Your task to perform on an android device: clear history in the chrome app Image 0: 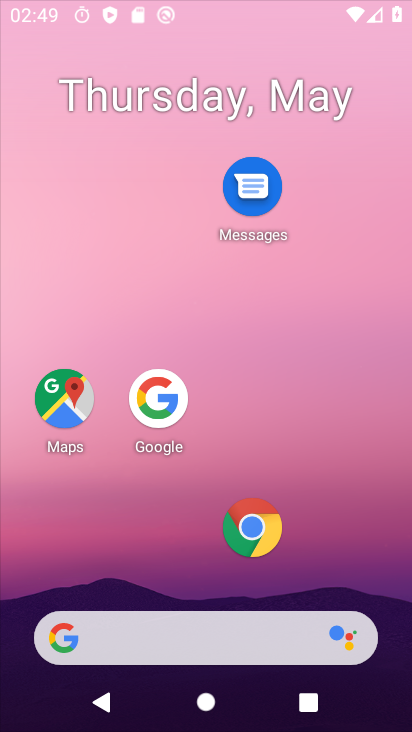
Step 0: click (190, 51)
Your task to perform on an android device: clear history in the chrome app Image 1: 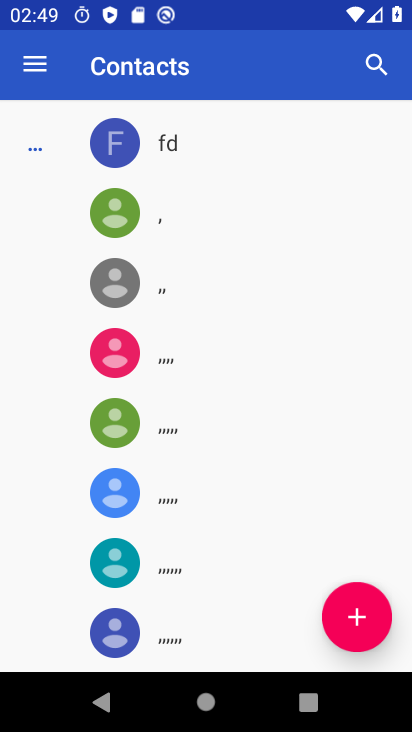
Step 1: drag from (146, 549) to (243, 182)
Your task to perform on an android device: clear history in the chrome app Image 2: 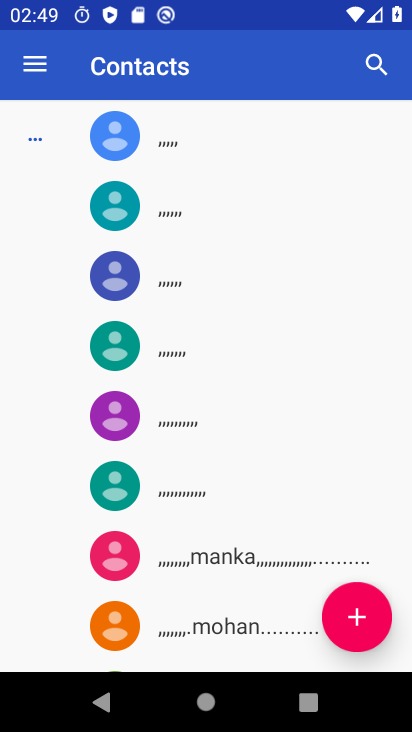
Step 2: press home button
Your task to perform on an android device: clear history in the chrome app Image 3: 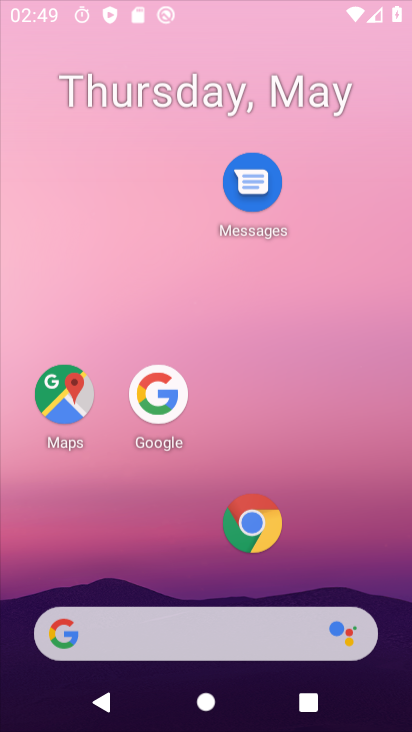
Step 3: drag from (217, 492) to (243, 135)
Your task to perform on an android device: clear history in the chrome app Image 4: 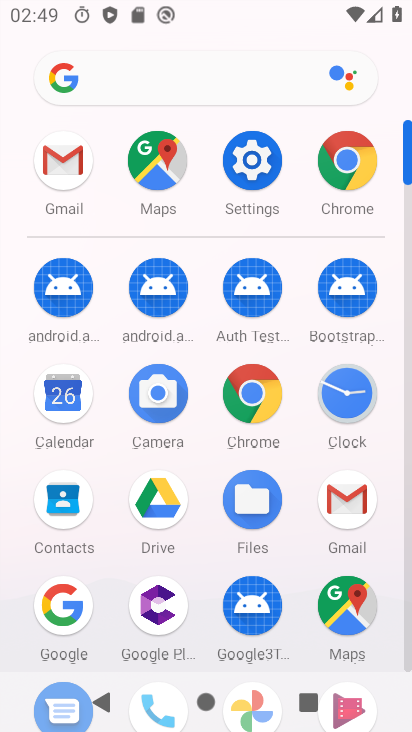
Step 4: click (247, 393)
Your task to perform on an android device: clear history in the chrome app Image 5: 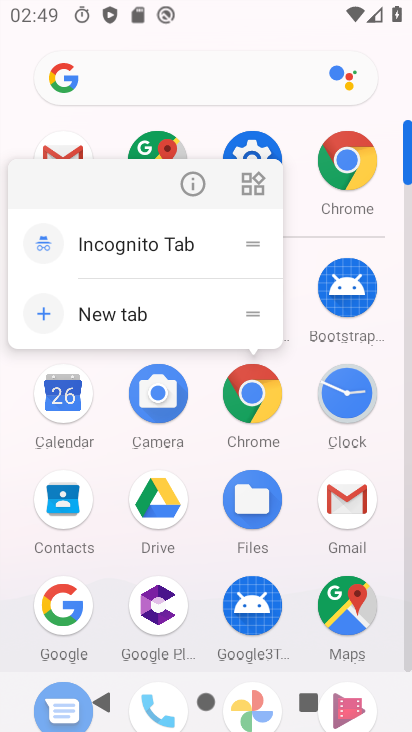
Step 5: click (186, 181)
Your task to perform on an android device: clear history in the chrome app Image 6: 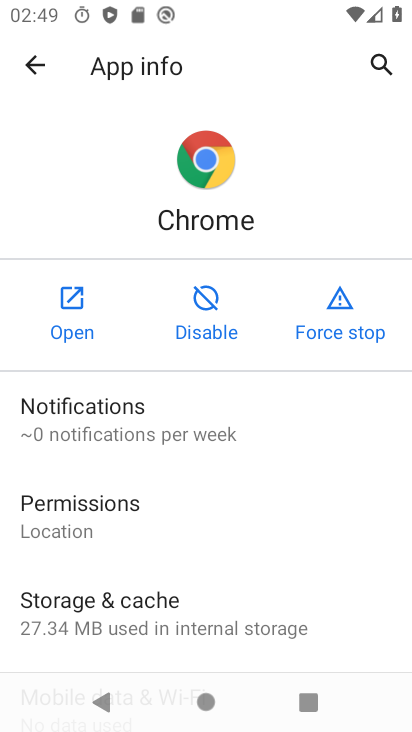
Step 6: click (69, 316)
Your task to perform on an android device: clear history in the chrome app Image 7: 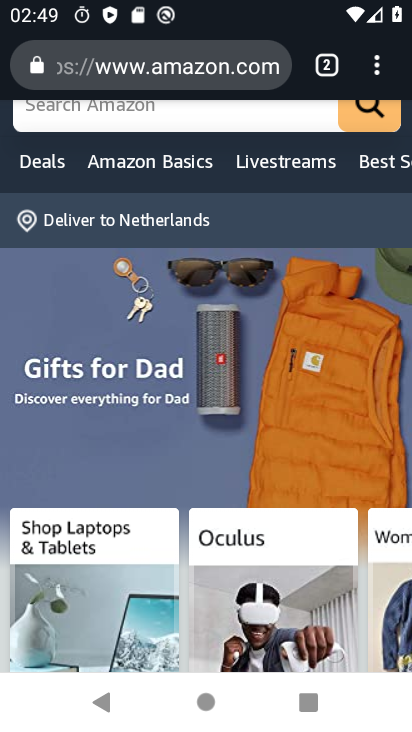
Step 7: click (388, 66)
Your task to perform on an android device: clear history in the chrome app Image 8: 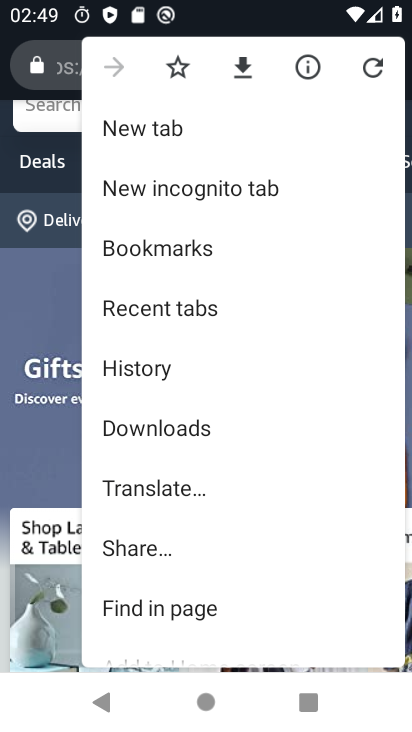
Step 8: click (167, 355)
Your task to perform on an android device: clear history in the chrome app Image 9: 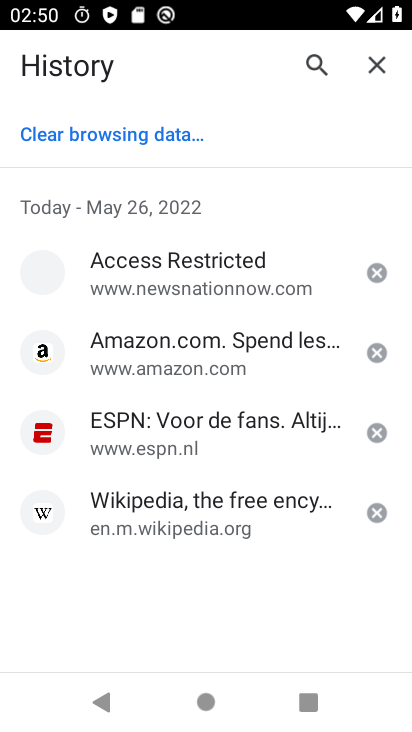
Step 9: click (135, 141)
Your task to perform on an android device: clear history in the chrome app Image 10: 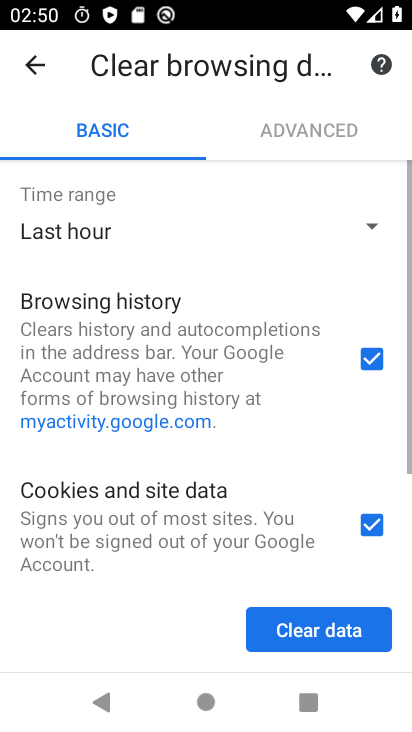
Step 10: click (371, 225)
Your task to perform on an android device: clear history in the chrome app Image 11: 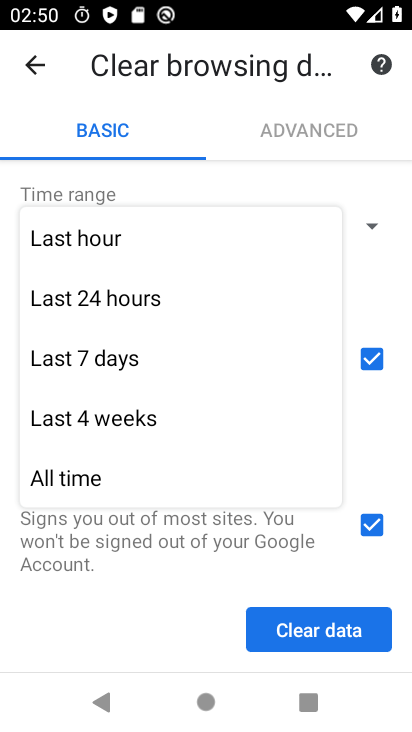
Step 11: click (92, 491)
Your task to perform on an android device: clear history in the chrome app Image 12: 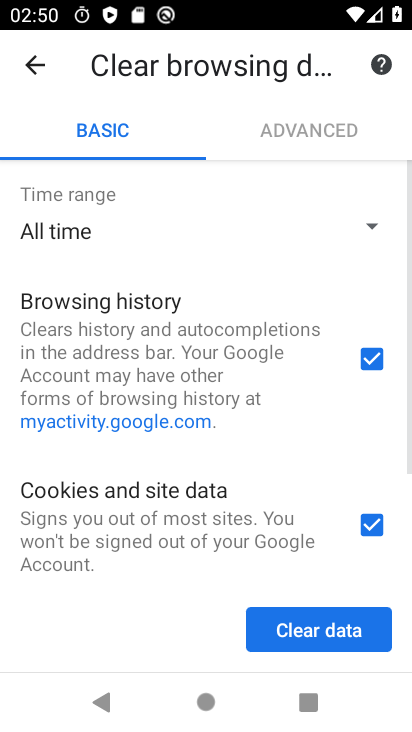
Step 12: click (291, 640)
Your task to perform on an android device: clear history in the chrome app Image 13: 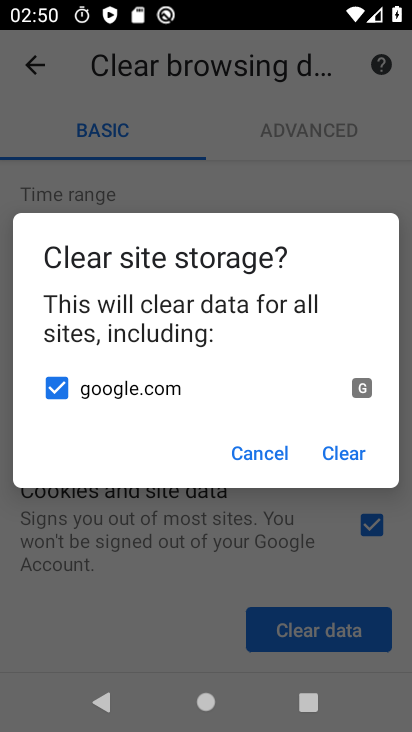
Step 13: click (338, 450)
Your task to perform on an android device: clear history in the chrome app Image 14: 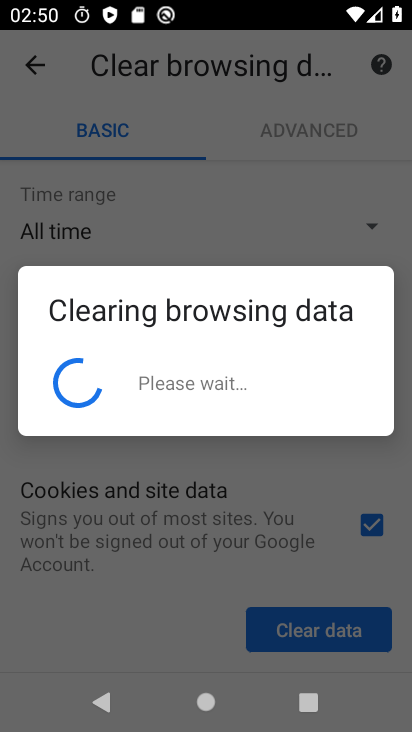
Step 14: task complete